Your task to perform on an android device: add a label to a message in the gmail app Image 0: 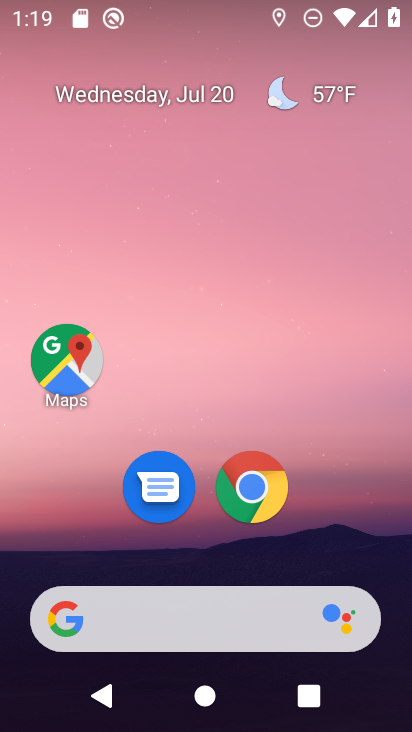
Step 0: drag from (365, 545) to (360, 433)
Your task to perform on an android device: add a label to a message in the gmail app Image 1: 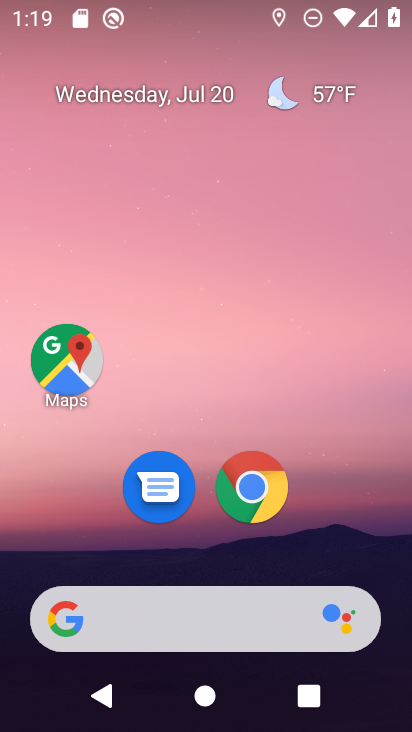
Step 1: drag from (380, 548) to (393, 151)
Your task to perform on an android device: add a label to a message in the gmail app Image 2: 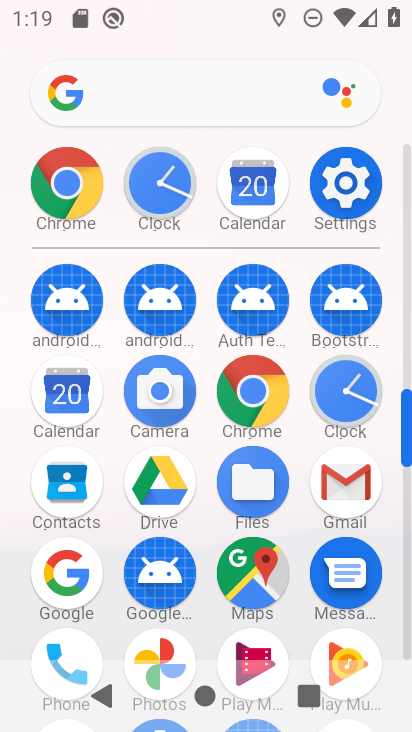
Step 2: click (381, 496)
Your task to perform on an android device: add a label to a message in the gmail app Image 3: 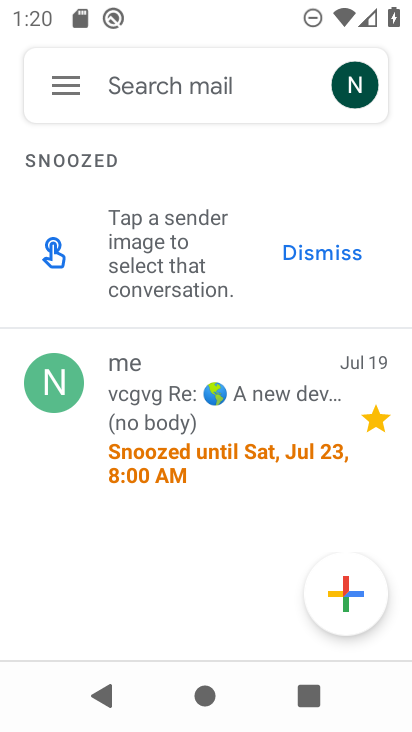
Step 3: click (66, 88)
Your task to perform on an android device: add a label to a message in the gmail app Image 4: 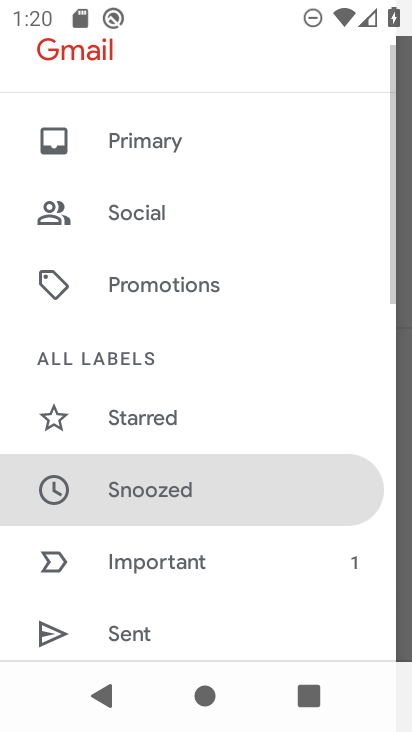
Step 4: drag from (277, 233) to (280, 355)
Your task to perform on an android device: add a label to a message in the gmail app Image 5: 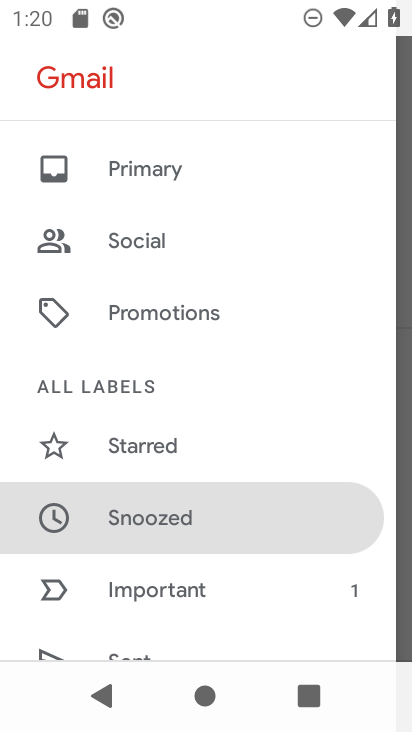
Step 5: drag from (303, 263) to (309, 300)
Your task to perform on an android device: add a label to a message in the gmail app Image 6: 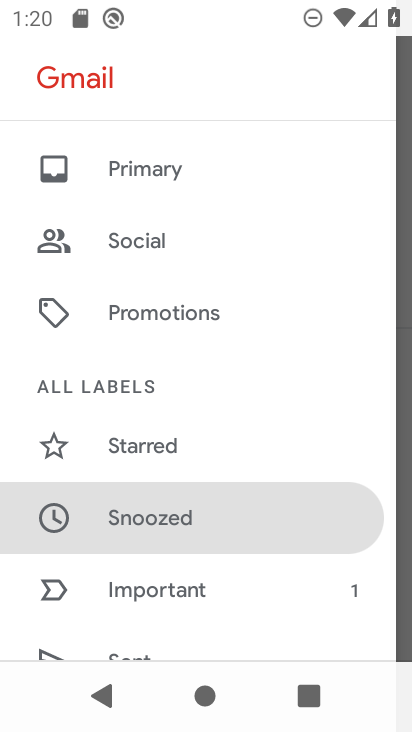
Step 6: click (305, 285)
Your task to perform on an android device: add a label to a message in the gmail app Image 7: 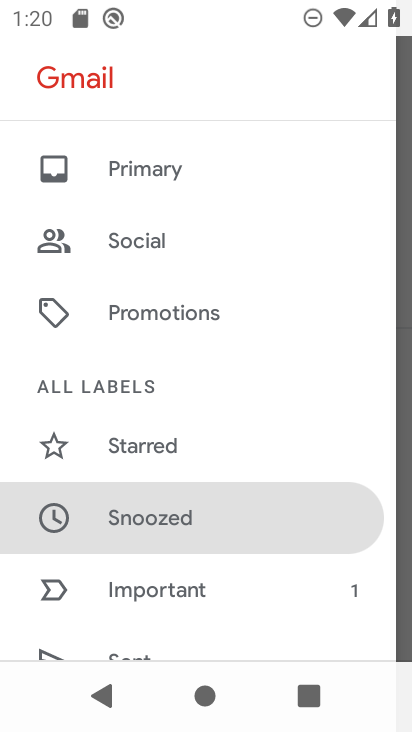
Step 7: click (208, 167)
Your task to perform on an android device: add a label to a message in the gmail app Image 8: 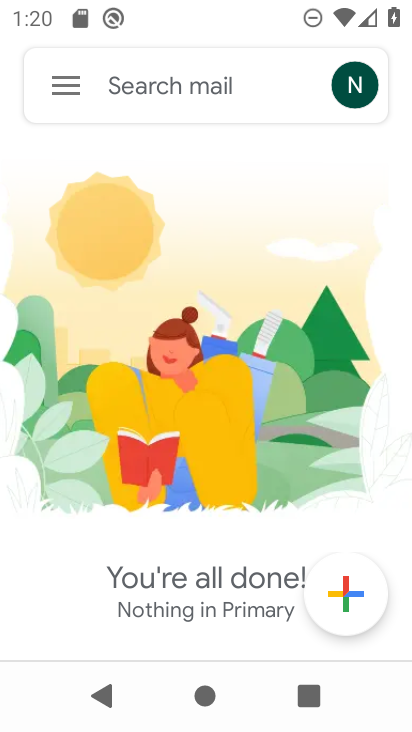
Step 8: task complete